Your task to perform on an android device: add a contact in the contacts app Image 0: 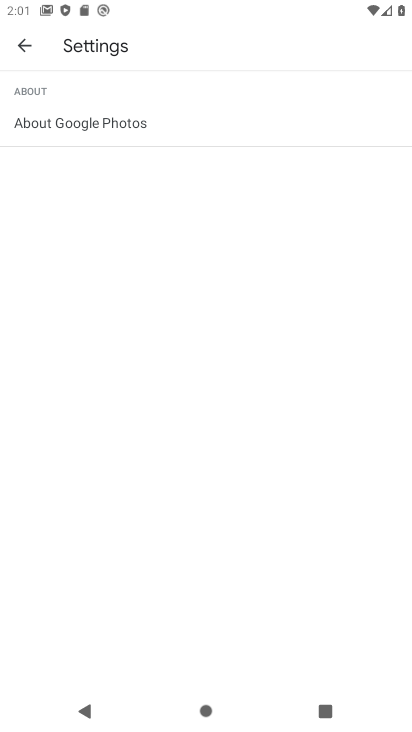
Step 0: press home button
Your task to perform on an android device: add a contact in the contacts app Image 1: 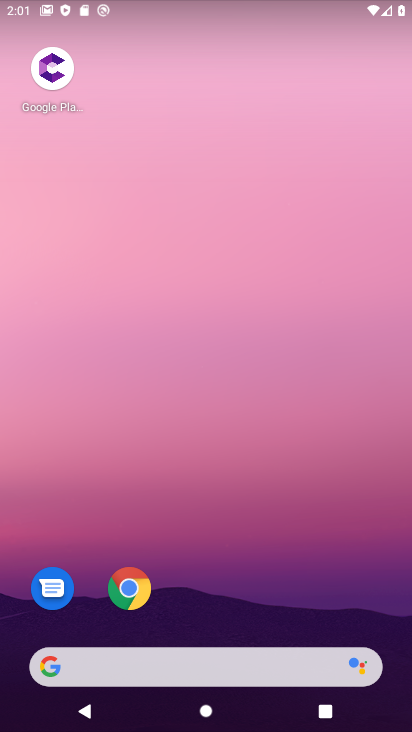
Step 1: drag from (197, 615) to (193, 109)
Your task to perform on an android device: add a contact in the contacts app Image 2: 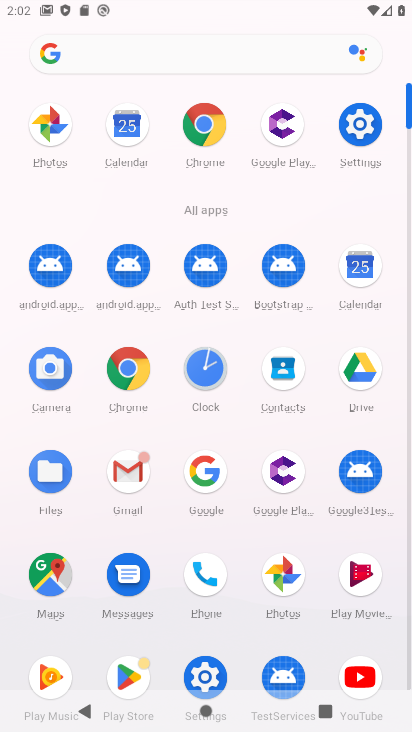
Step 2: click (279, 353)
Your task to perform on an android device: add a contact in the contacts app Image 3: 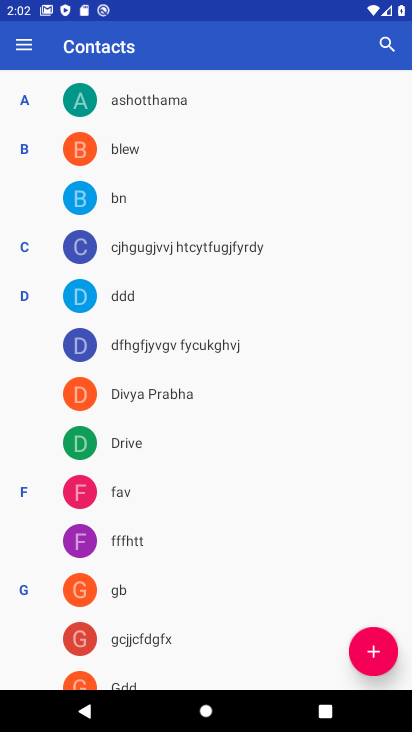
Step 3: click (361, 648)
Your task to perform on an android device: add a contact in the contacts app Image 4: 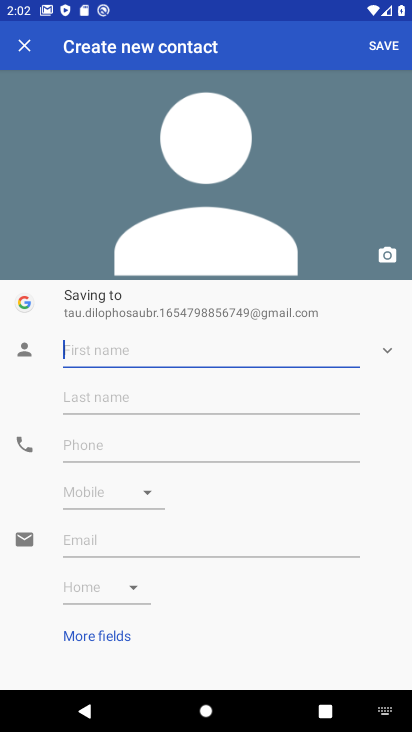
Step 4: type "dhdfhdfgh"
Your task to perform on an android device: add a contact in the contacts app Image 5: 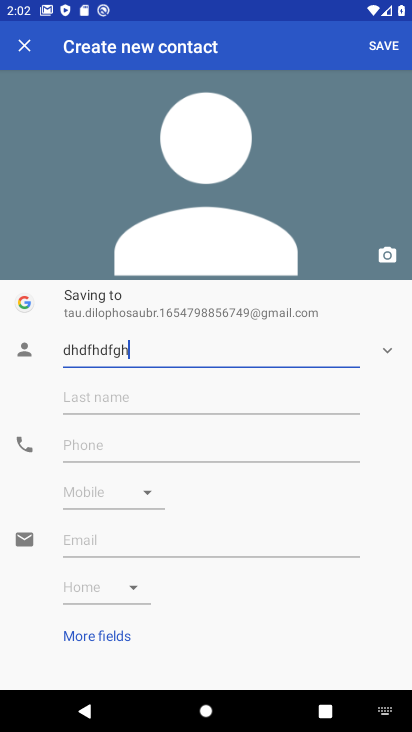
Step 5: click (130, 445)
Your task to perform on an android device: add a contact in the contacts app Image 6: 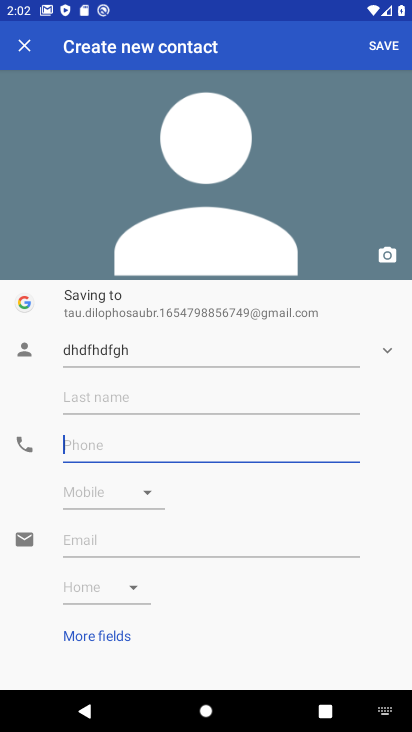
Step 6: type "868657567546"
Your task to perform on an android device: add a contact in the contacts app Image 7: 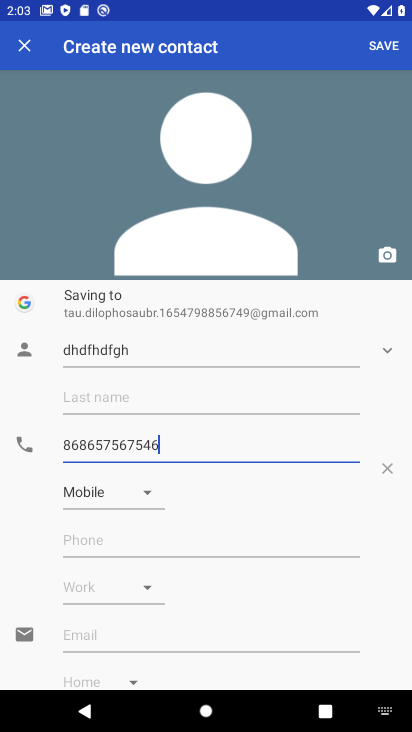
Step 7: click (381, 51)
Your task to perform on an android device: add a contact in the contacts app Image 8: 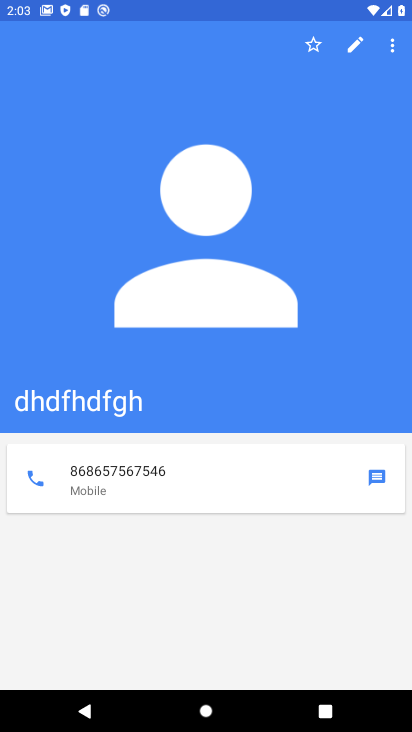
Step 8: task complete